Your task to perform on an android device: Open privacy settings Image 0: 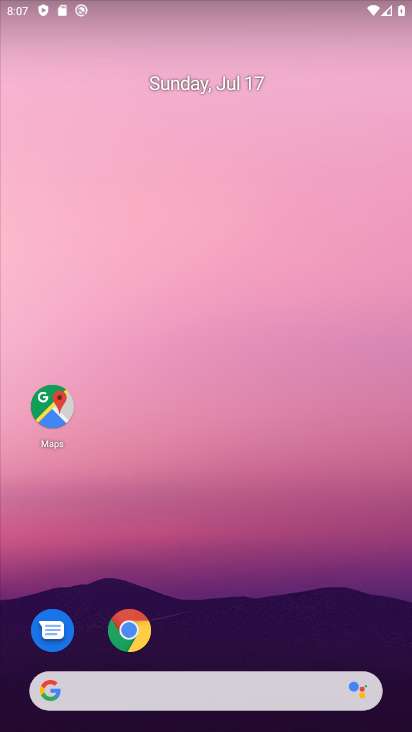
Step 0: drag from (351, 598) to (349, 94)
Your task to perform on an android device: Open privacy settings Image 1: 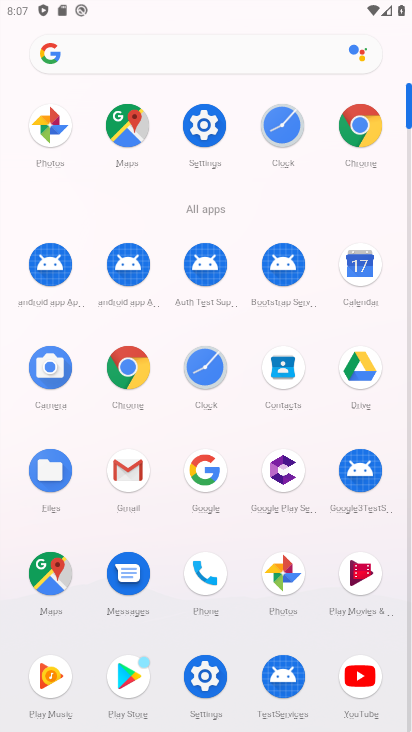
Step 1: click (207, 132)
Your task to perform on an android device: Open privacy settings Image 2: 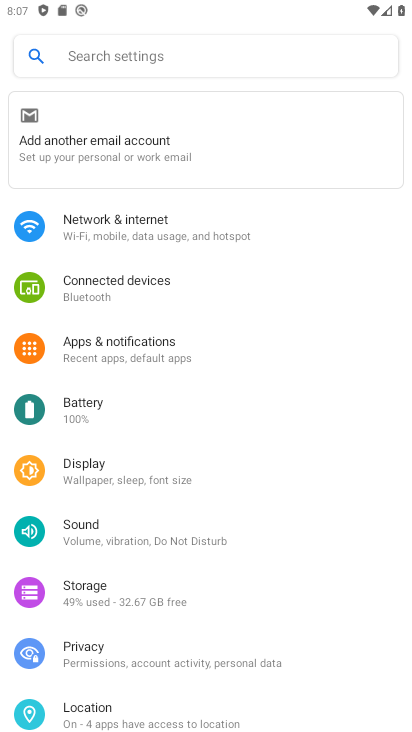
Step 2: drag from (340, 539) to (346, 442)
Your task to perform on an android device: Open privacy settings Image 3: 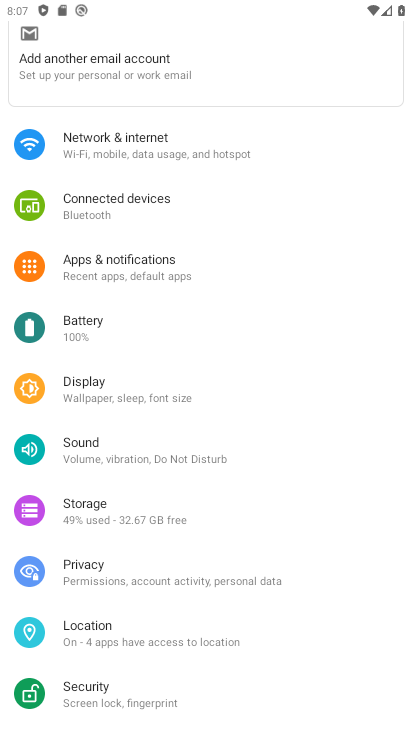
Step 3: drag from (333, 573) to (335, 489)
Your task to perform on an android device: Open privacy settings Image 4: 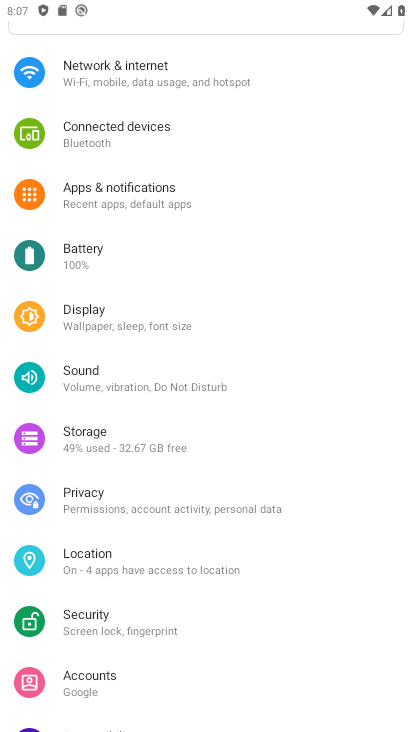
Step 4: drag from (325, 591) to (301, 493)
Your task to perform on an android device: Open privacy settings Image 5: 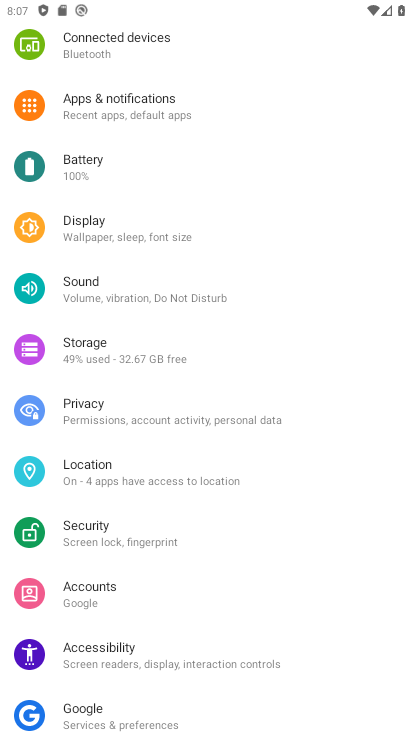
Step 5: drag from (290, 566) to (284, 445)
Your task to perform on an android device: Open privacy settings Image 6: 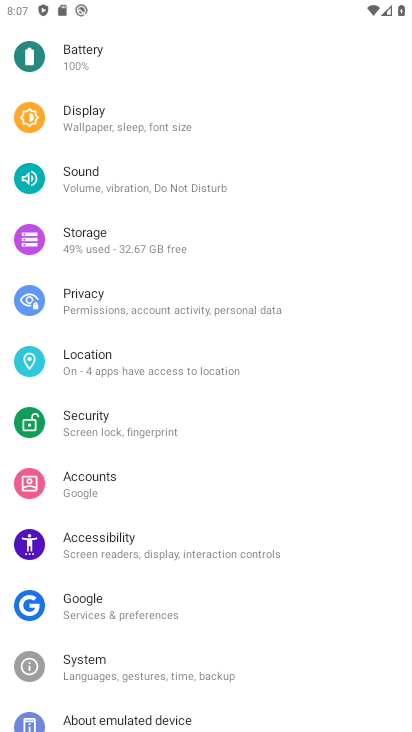
Step 6: drag from (281, 589) to (288, 509)
Your task to perform on an android device: Open privacy settings Image 7: 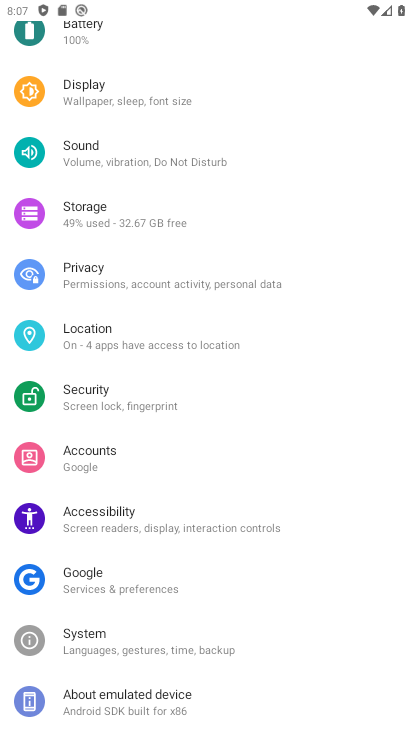
Step 7: drag from (324, 461) to (331, 525)
Your task to perform on an android device: Open privacy settings Image 8: 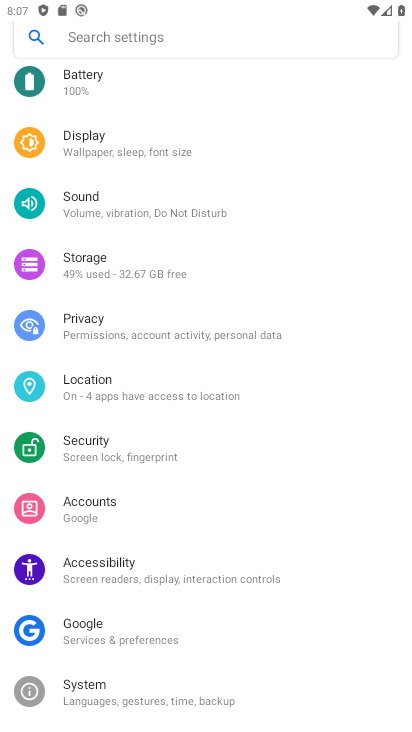
Step 8: drag from (328, 457) to (328, 524)
Your task to perform on an android device: Open privacy settings Image 9: 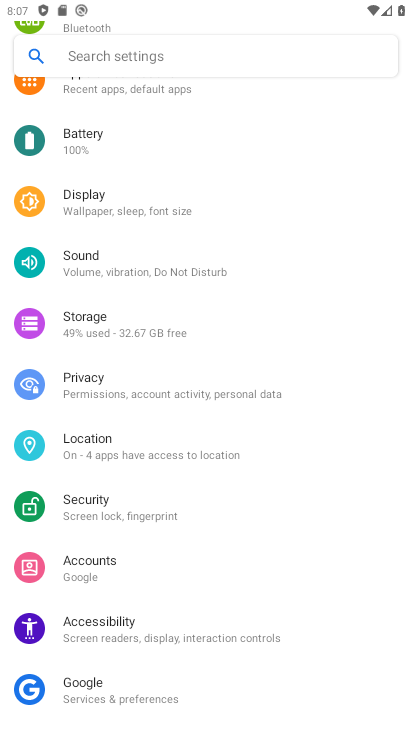
Step 9: drag from (328, 456) to (328, 531)
Your task to perform on an android device: Open privacy settings Image 10: 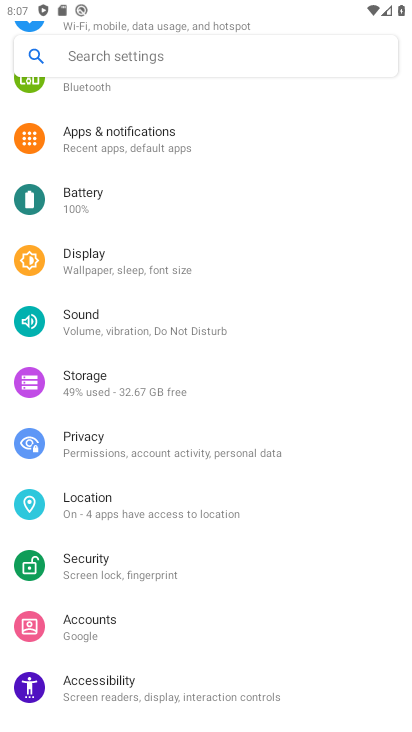
Step 10: drag from (323, 459) to (326, 524)
Your task to perform on an android device: Open privacy settings Image 11: 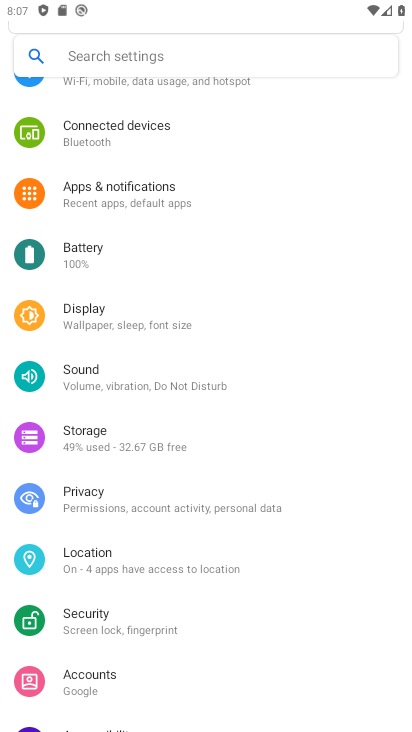
Step 11: drag from (326, 431) to (342, 600)
Your task to perform on an android device: Open privacy settings Image 12: 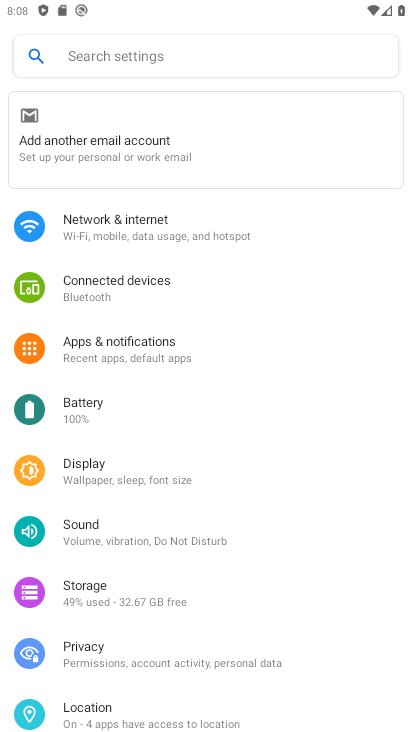
Step 12: click (271, 646)
Your task to perform on an android device: Open privacy settings Image 13: 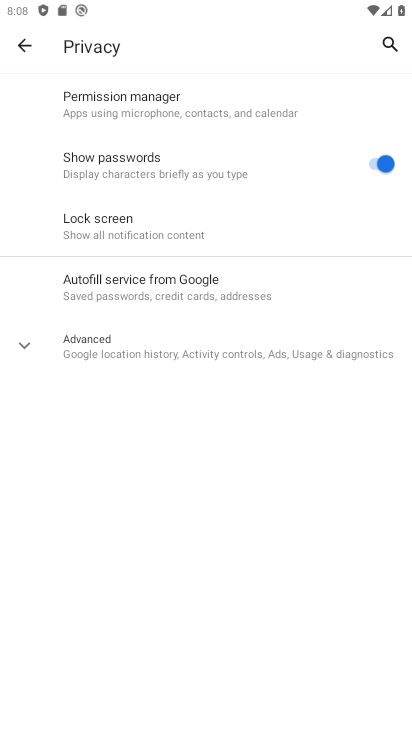
Step 13: task complete